Your task to perform on an android device: Is it going to rain this weekend? Image 0: 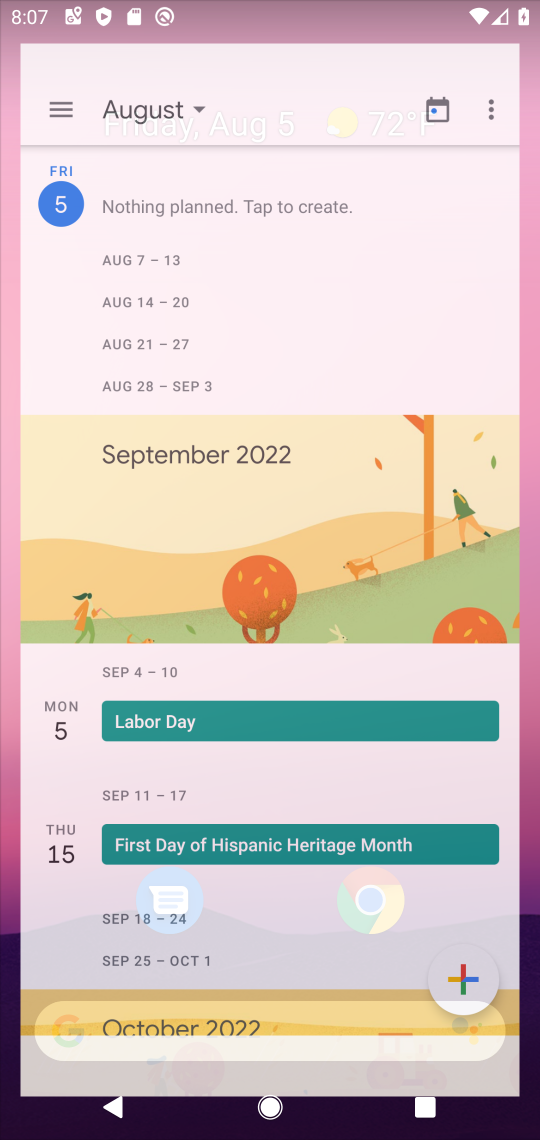
Step 0: press home button
Your task to perform on an android device: Is it going to rain this weekend? Image 1: 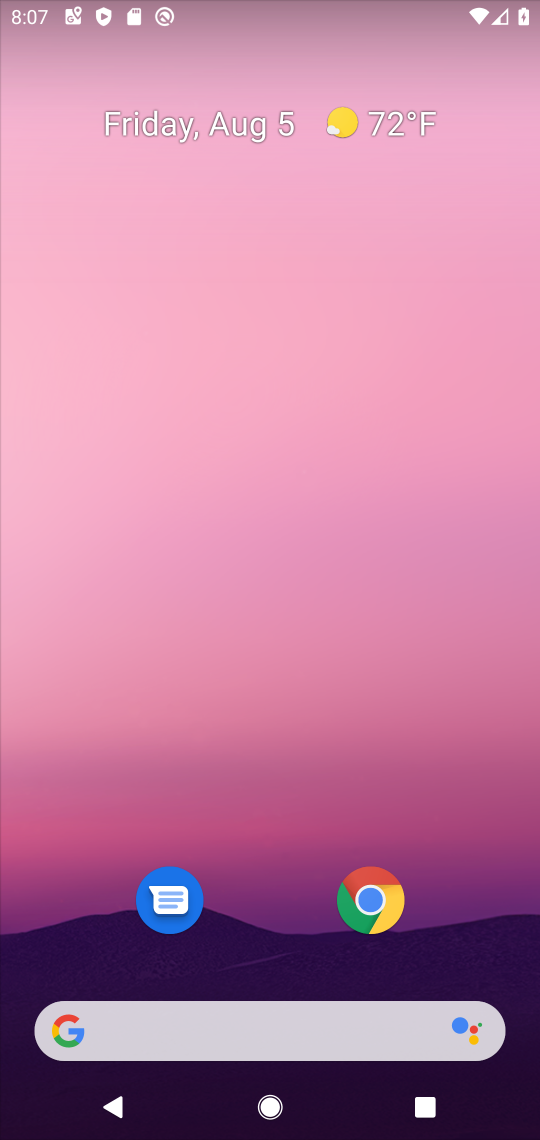
Step 1: drag from (220, 1008) to (207, 339)
Your task to perform on an android device: Is it going to rain this weekend? Image 2: 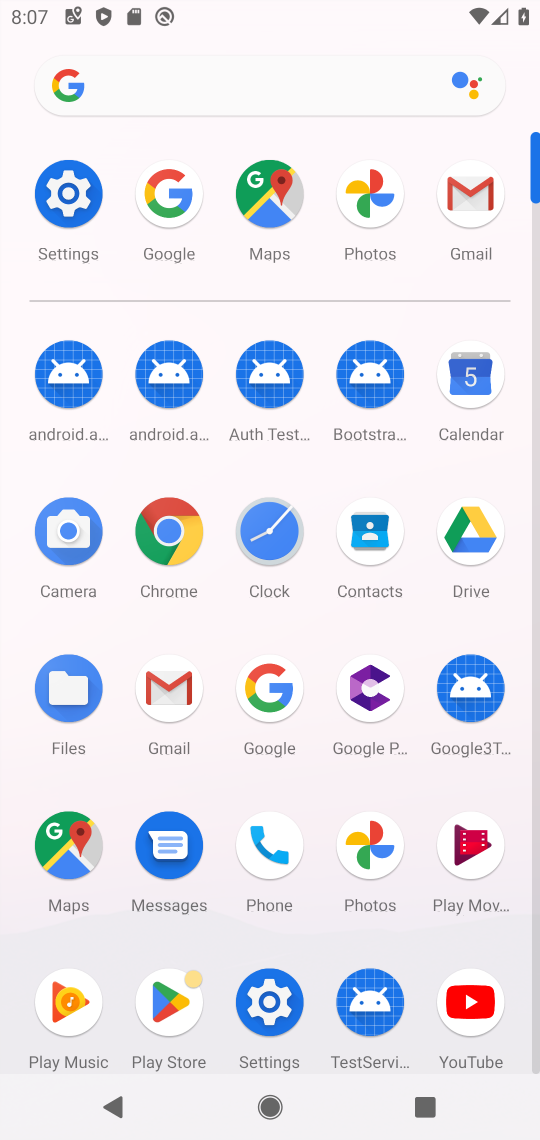
Step 2: click (148, 204)
Your task to perform on an android device: Is it going to rain this weekend? Image 3: 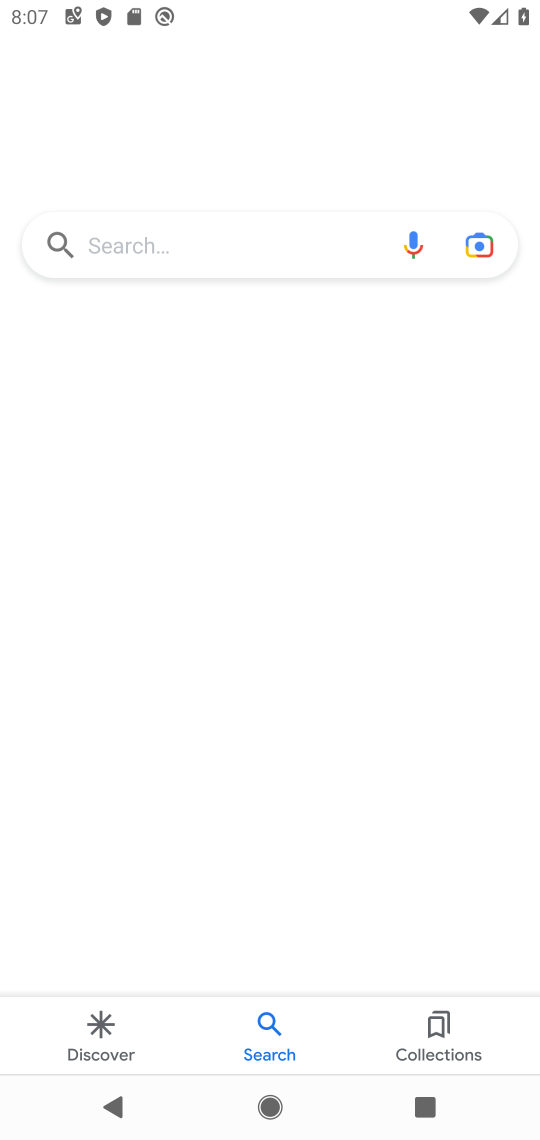
Step 3: click (274, 252)
Your task to perform on an android device: Is it going to rain this weekend? Image 4: 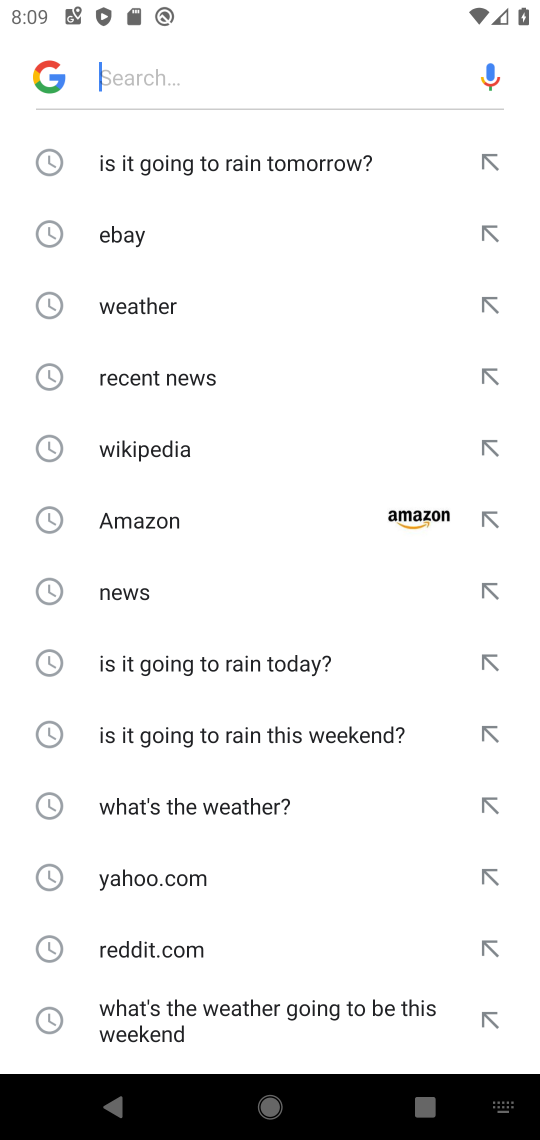
Step 4: click (204, 739)
Your task to perform on an android device: Is it going to rain this weekend? Image 5: 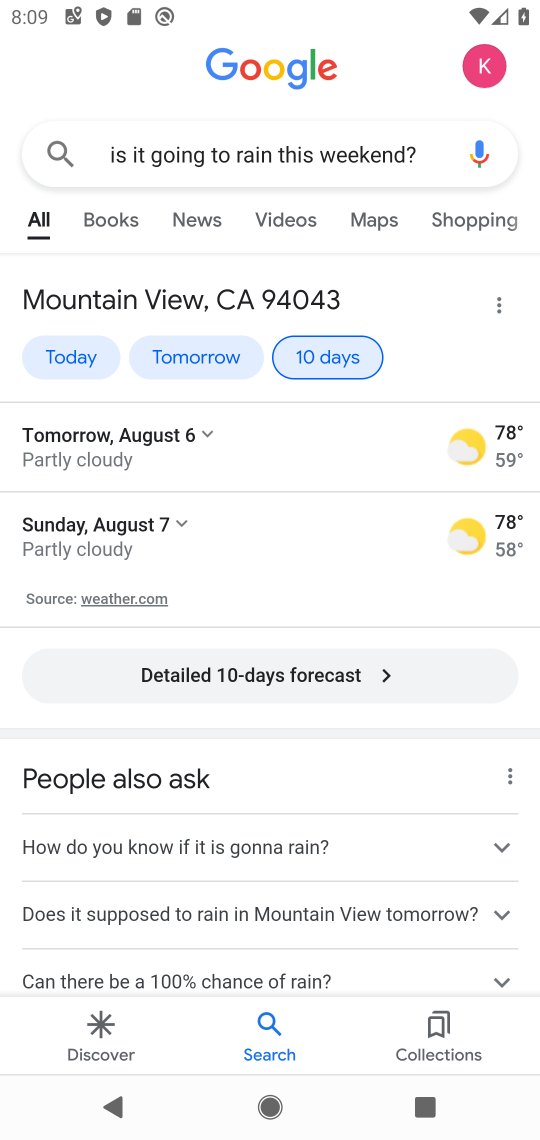
Step 5: click (223, 669)
Your task to perform on an android device: Is it going to rain this weekend? Image 6: 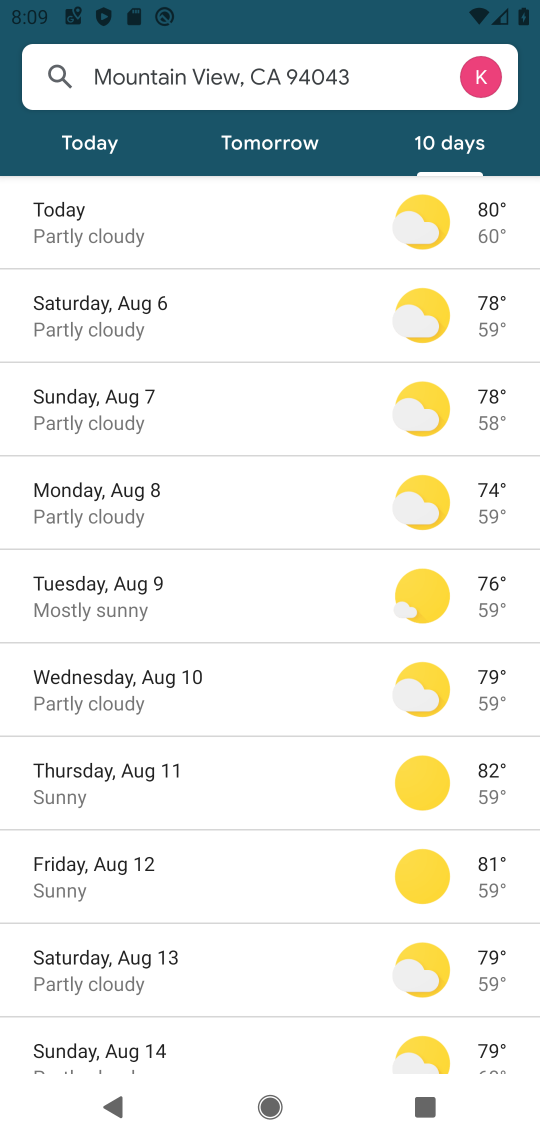
Step 6: task complete